Your task to perform on an android device: delete the emails in spam in the gmail app Image 0: 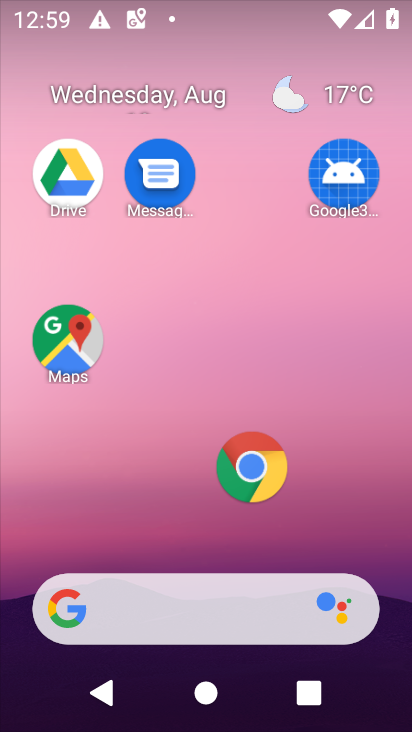
Step 0: drag from (169, 528) to (232, 138)
Your task to perform on an android device: delete the emails in spam in the gmail app Image 1: 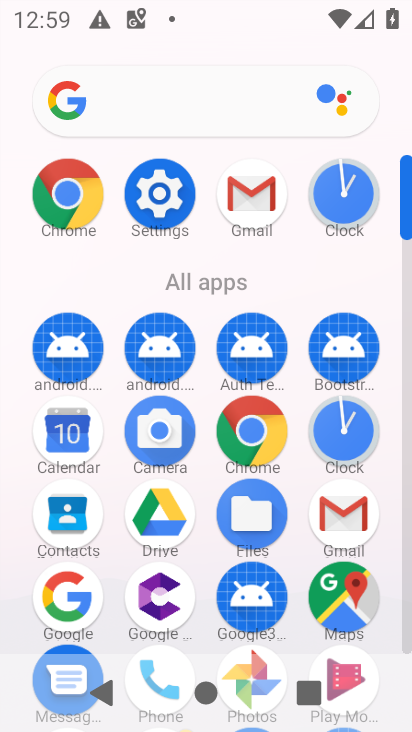
Step 1: click (234, 190)
Your task to perform on an android device: delete the emails in spam in the gmail app Image 2: 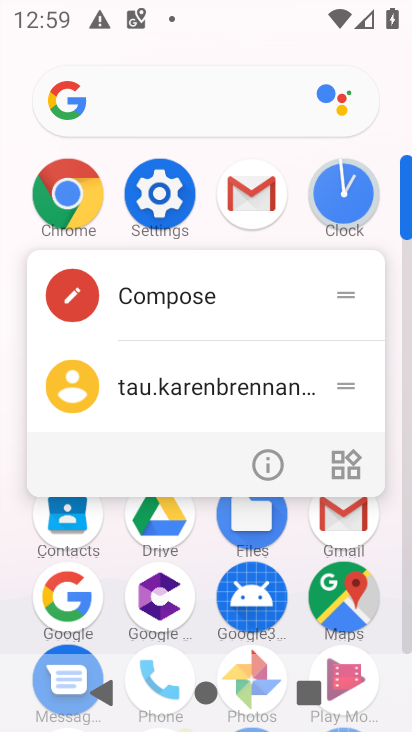
Step 2: click (239, 193)
Your task to perform on an android device: delete the emails in spam in the gmail app Image 3: 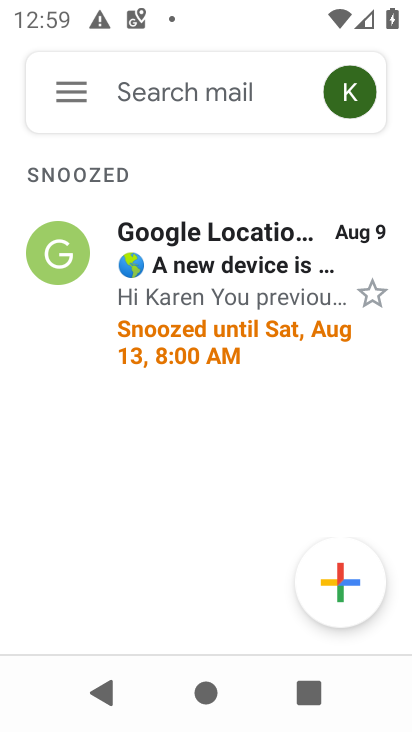
Step 3: click (91, 106)
Your task to perform on an android device: delete the emails in spam in the gmail app Image 4: 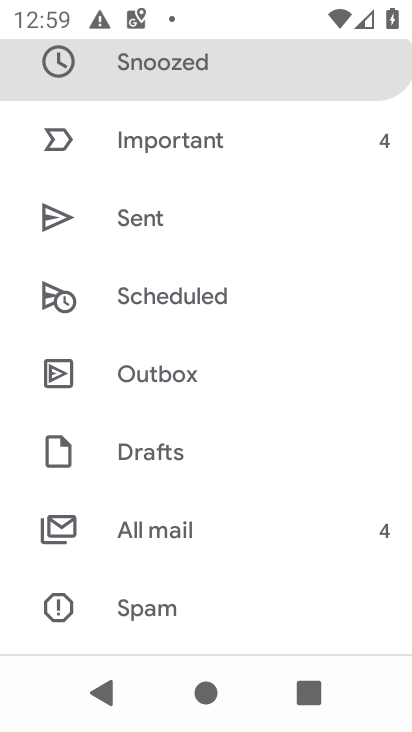
Step 4: click (174, 606)
Your task to perform on an android device: delete the emails in spam in the gmail app Image 5: 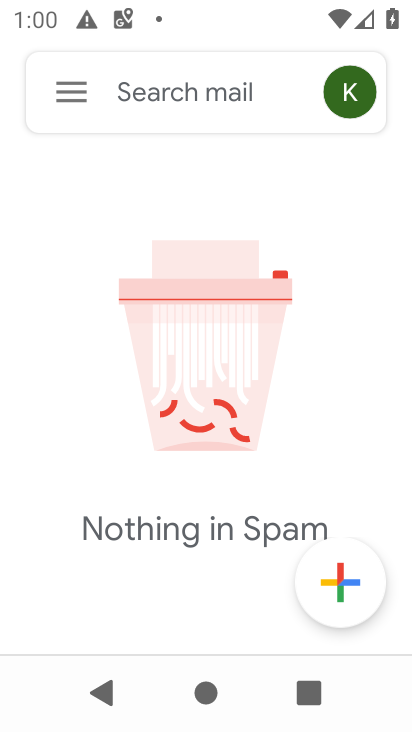
Step 5: task complete